Your task to perform on an android device: Open ESPN.com Image 0: 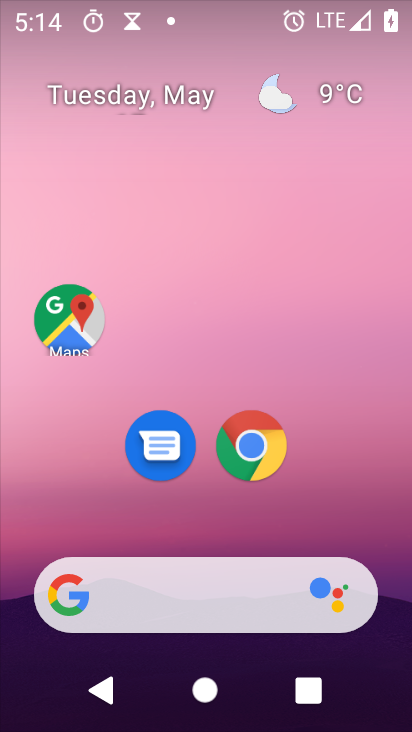
Step 0: drag from (133, 593) to (122, 1)
Your task to perform on an android device: Open ESPN.com Image 1: 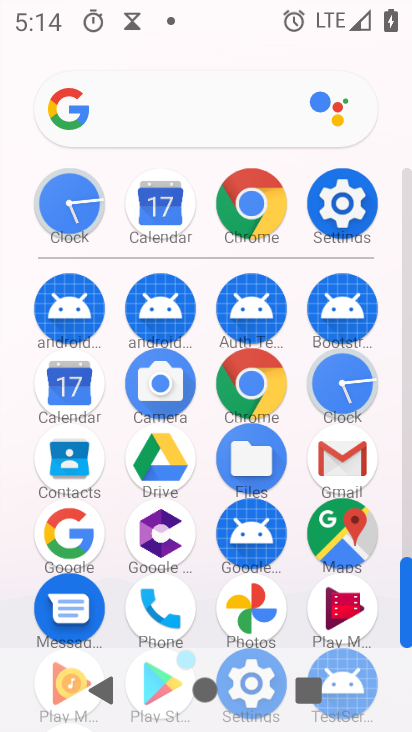
Step 1: click (228, 378)
Your task to perform on an android device: Open ESPN.com Image 2: 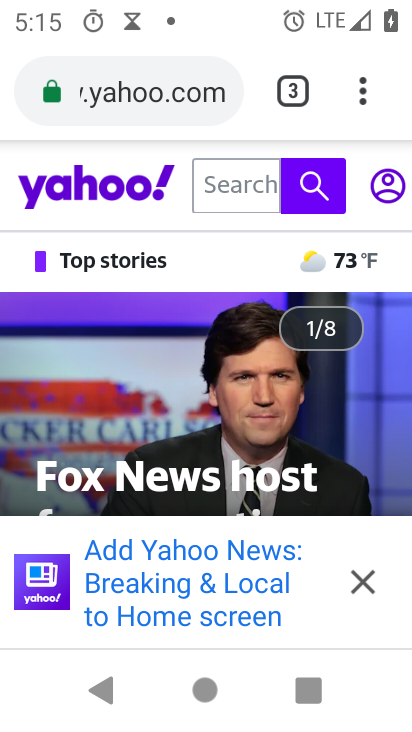
Step 2: click (221, 96)
Your task to perform on an android device: Open ESPN.com Image 3: 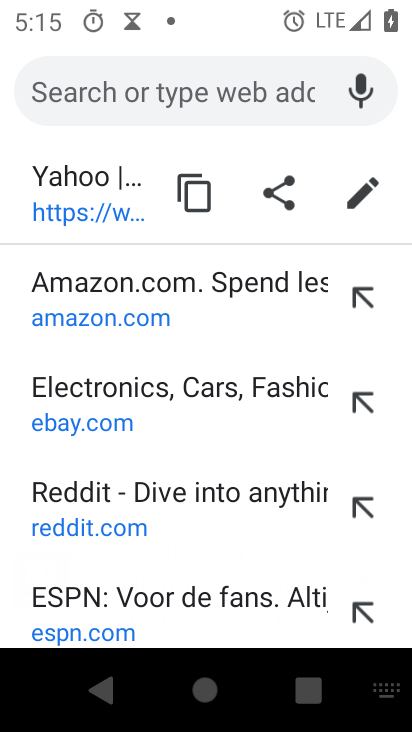
Step 3: click (213, 93)
Your task to perform on an android device: Open ESPN.com Image 4: 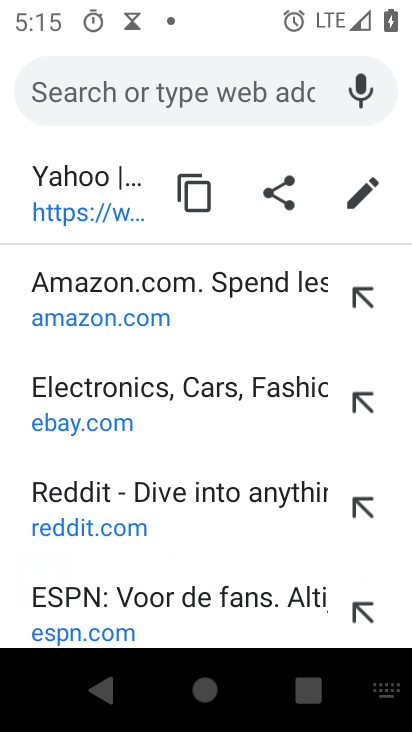
Step 4: click (140, 613)
Your task to perform on an android device: Open ESPN.com Image 5: 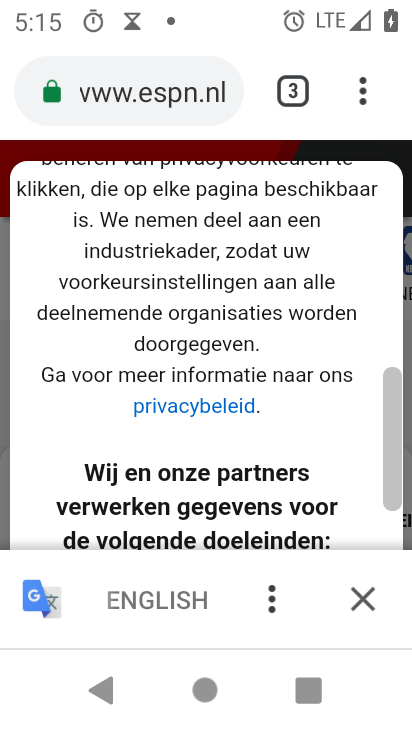
Step 5: task complete